Your task to perform on an android device: open app "LiveIn - Share Your Moment" Image 0: 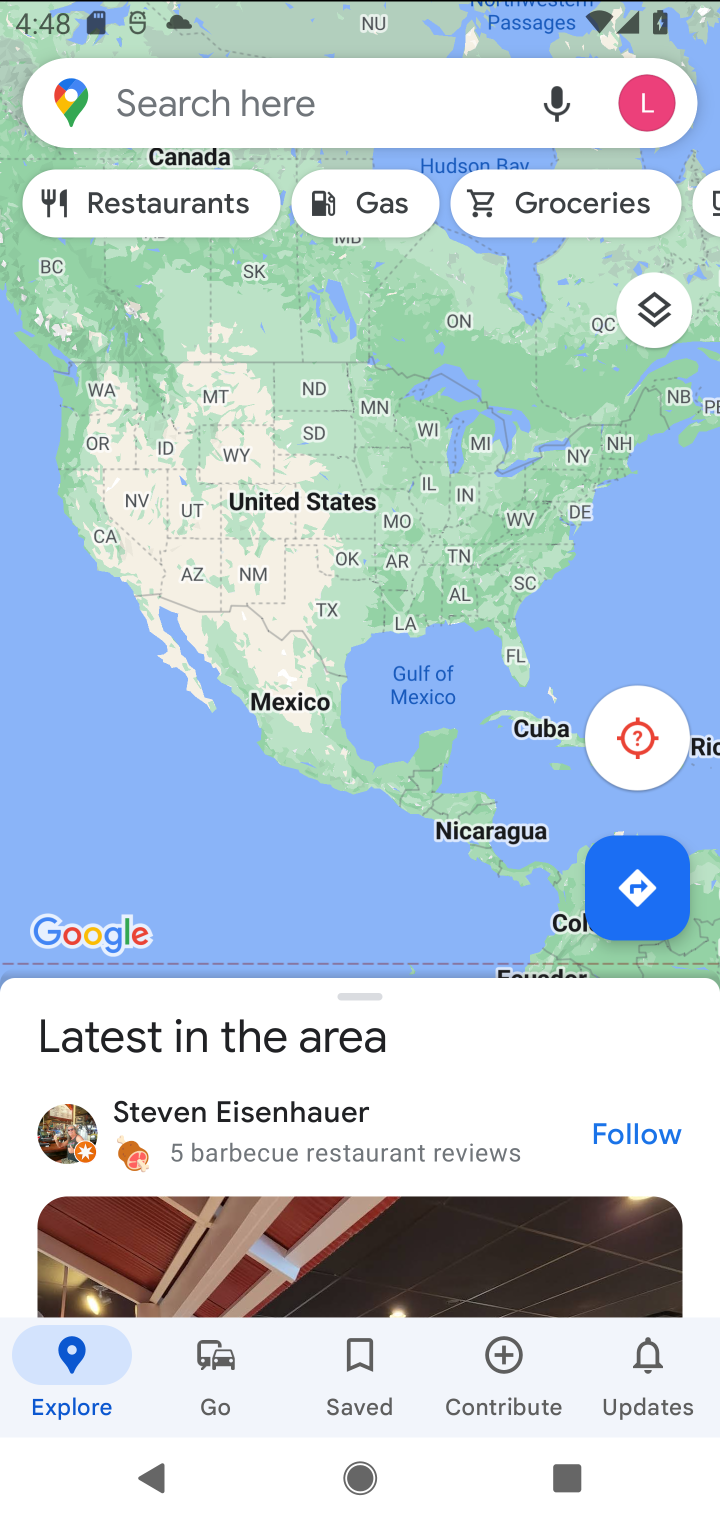
Step 0: press home button
Your task to perform on an android device: open app "LiveIn - Share Your Moment" Image 1: 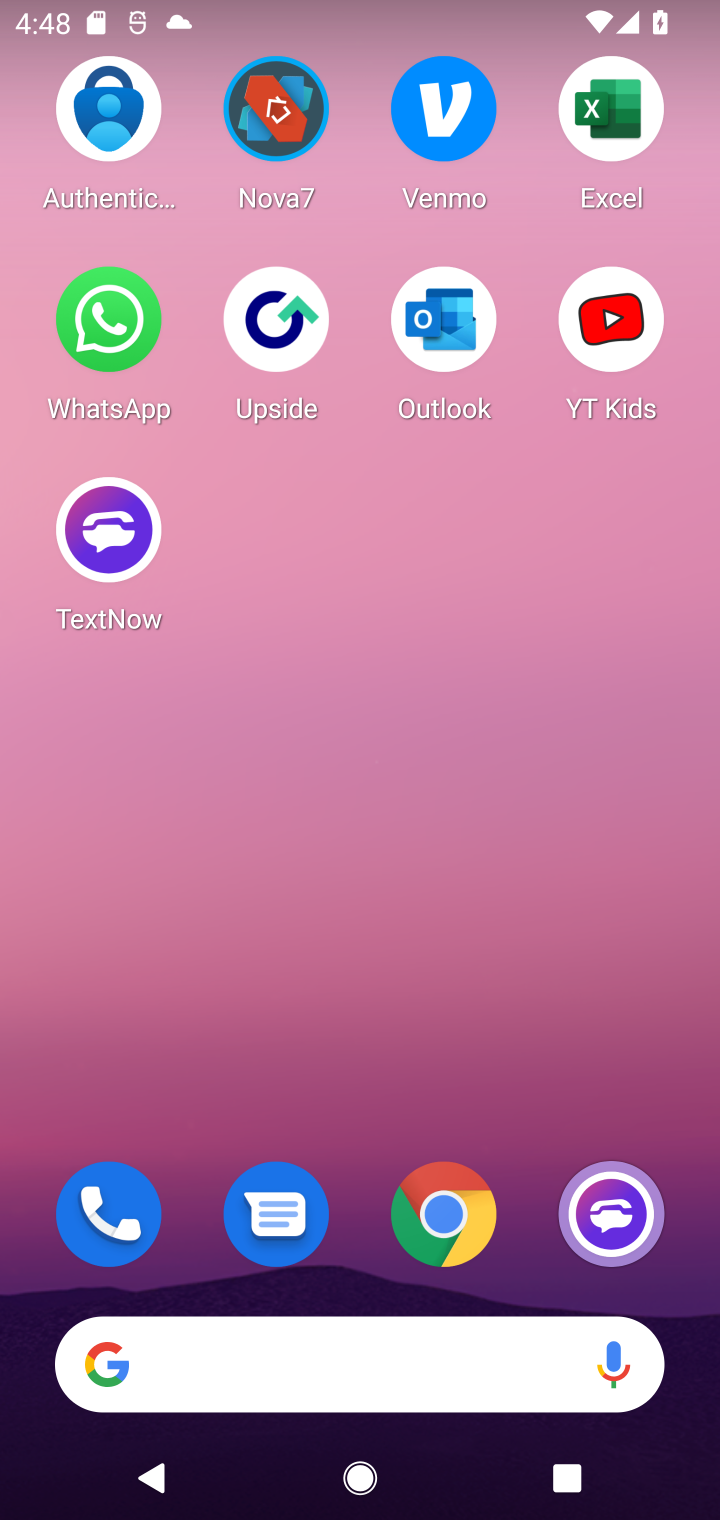
Step 1: drag from (361, 1111) to (404, 338)
Your task to perform on an android device: open app "LiveIn - Share Your Moment" Image 2: 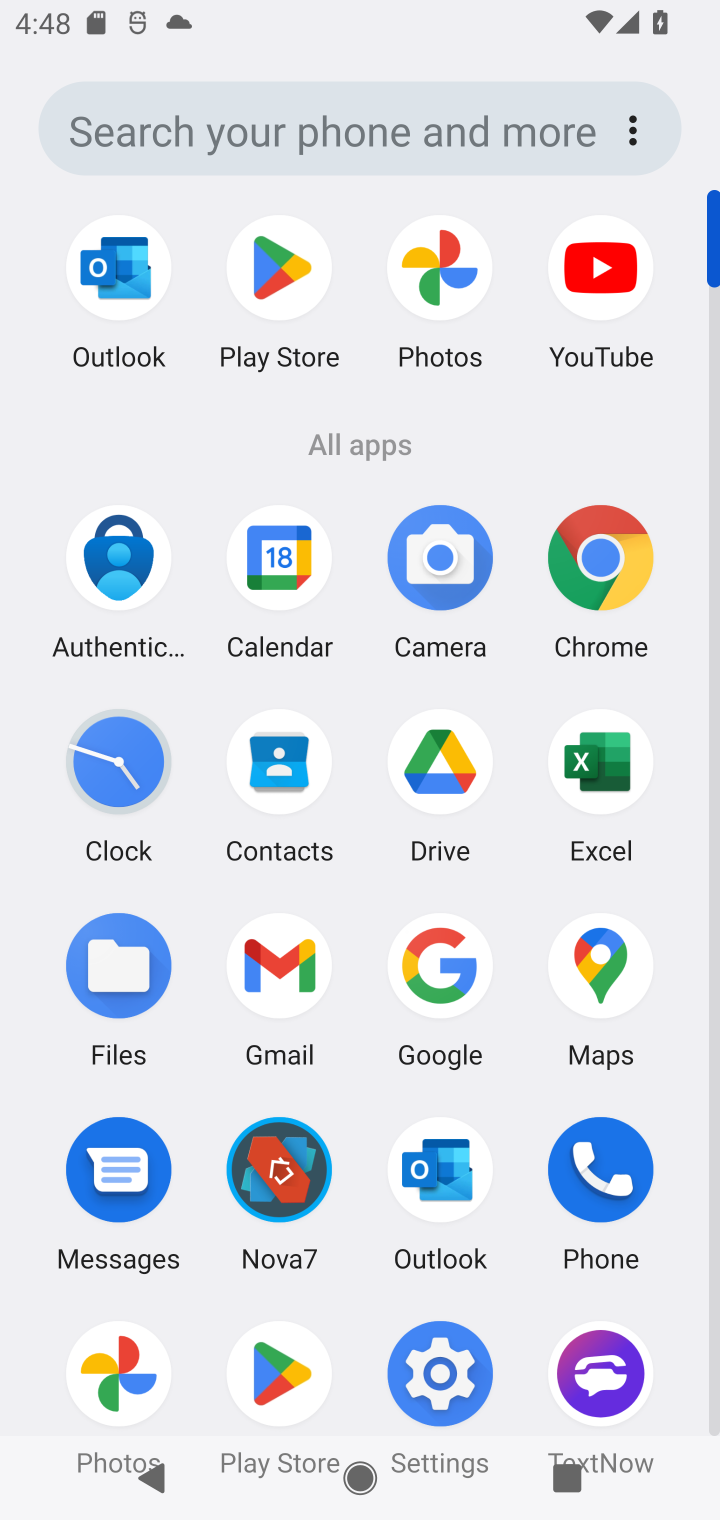
Step 2: click (274, 270)
Your task to perform on an android device: open app "LiveIn - Share Your Moment" Image 3: 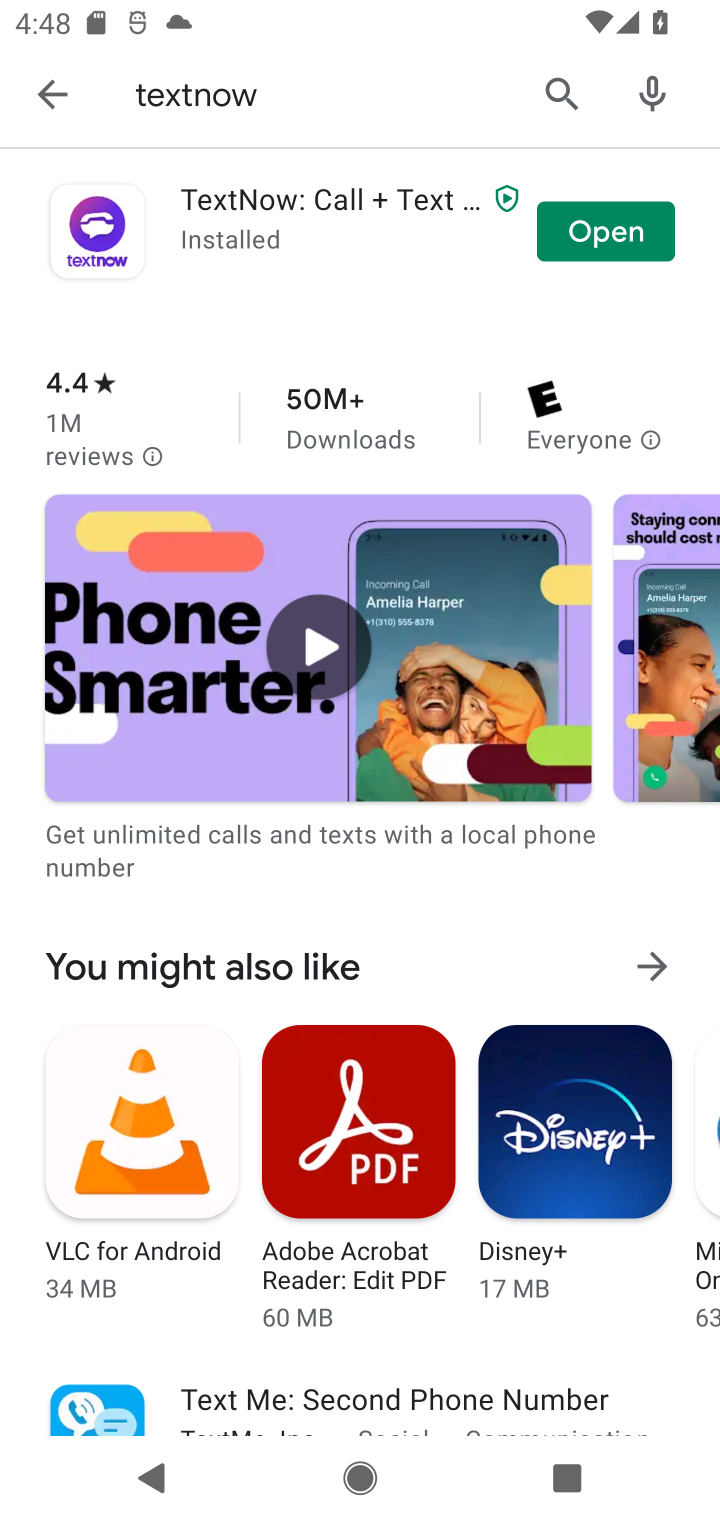
Step 3: click (288, 94)
Your task to perform on an android device: open app "LiveIn - Share Your Moment" Image 4: 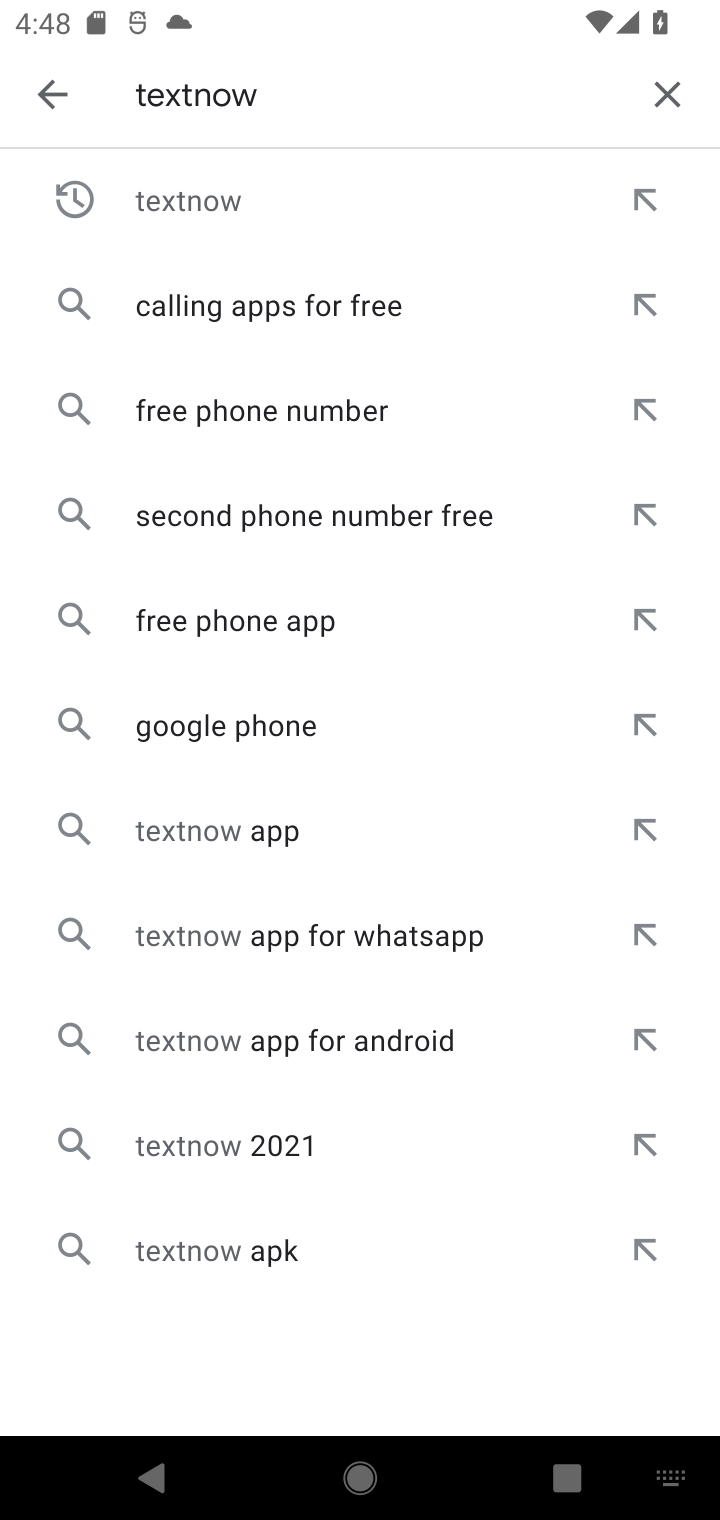
Step 4: click (659, 81)
Your task to perform on an android device: open app "LiveIn - Share Your Moment" Image 5: 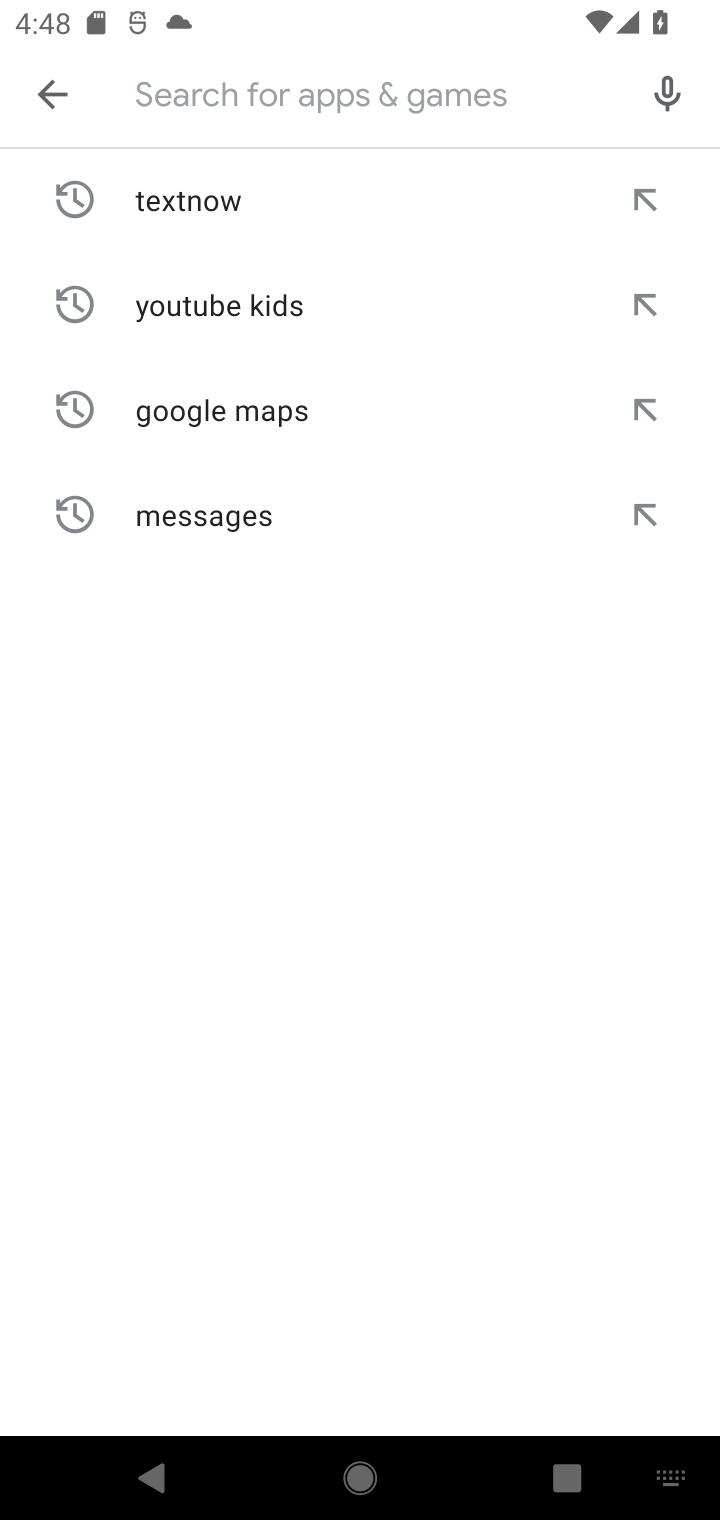
Step 5: type "liveIn"
Your task to perform on an android device: open app "LiveIn - Share Your Moment" Image 6: 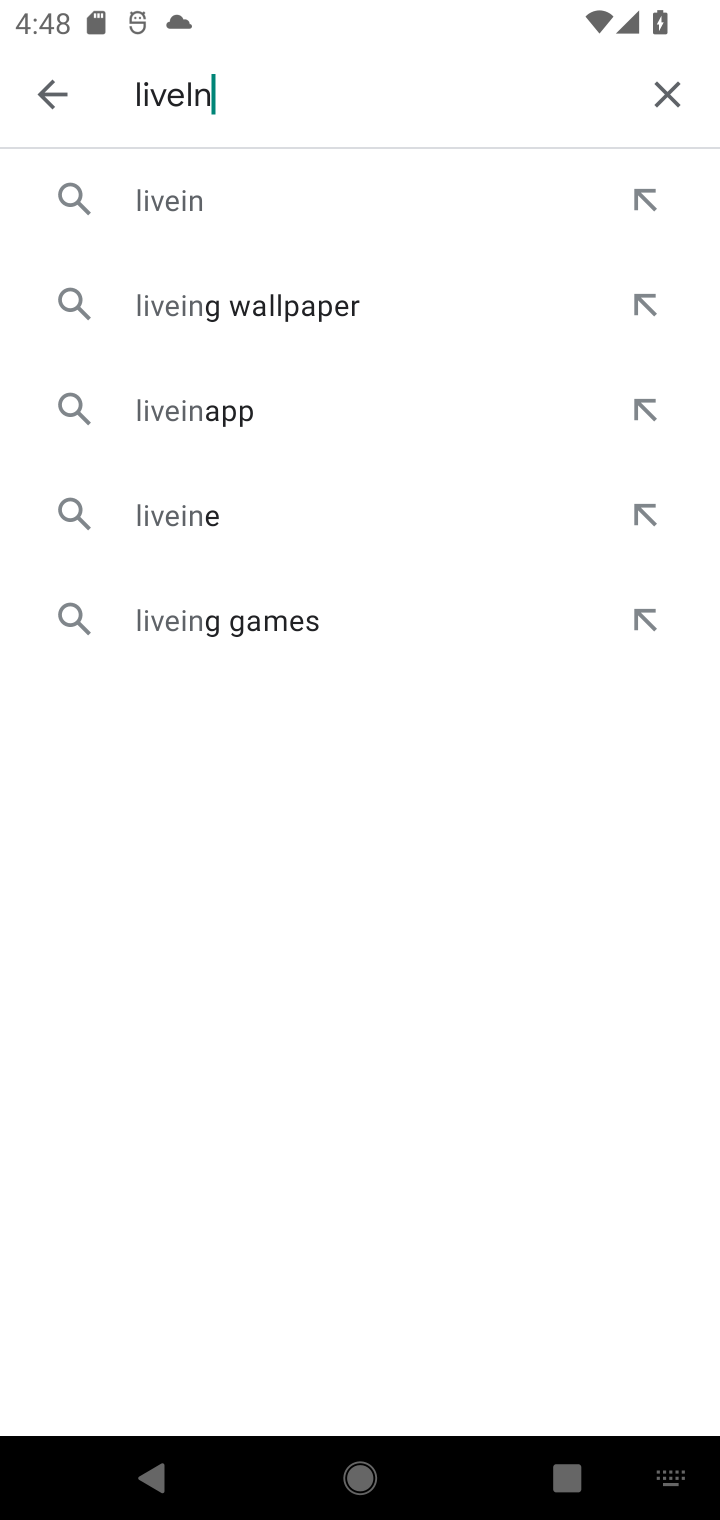
Step 6: click (205, 186)
Your task to perform on an android device: open app "LiveIn - Share Your Moment" Image 7: 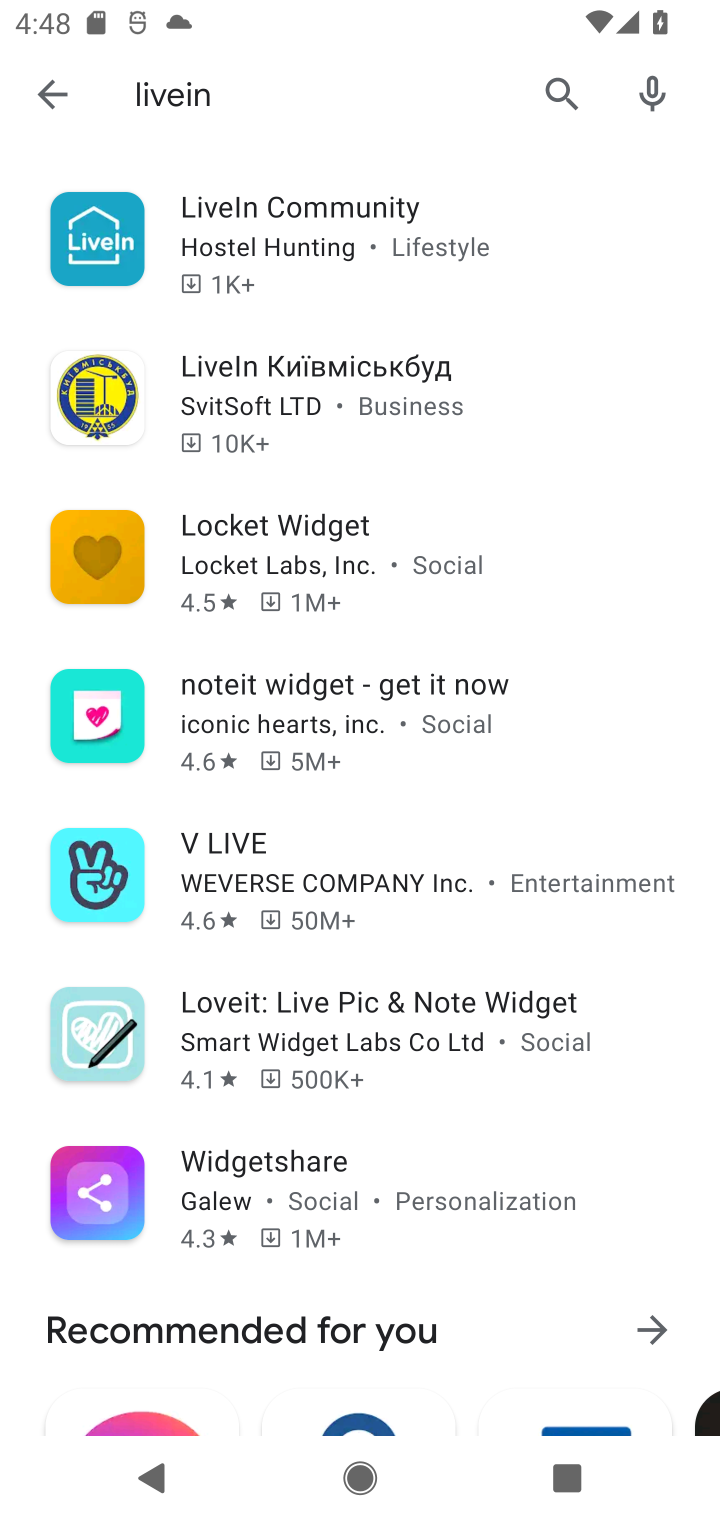
Step 7: task complete